Your task to perform on an android device: Open Chrome and go to settings Image 0: 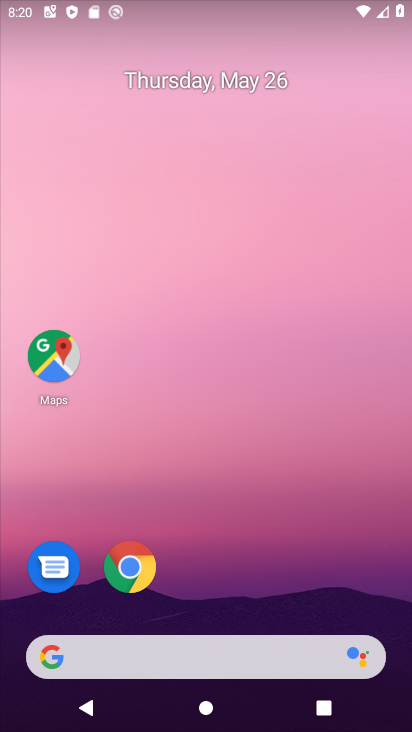
Step 0: click (134, 573)
Your task to perform on an android device: Open Chrome and go to settings Image 1: 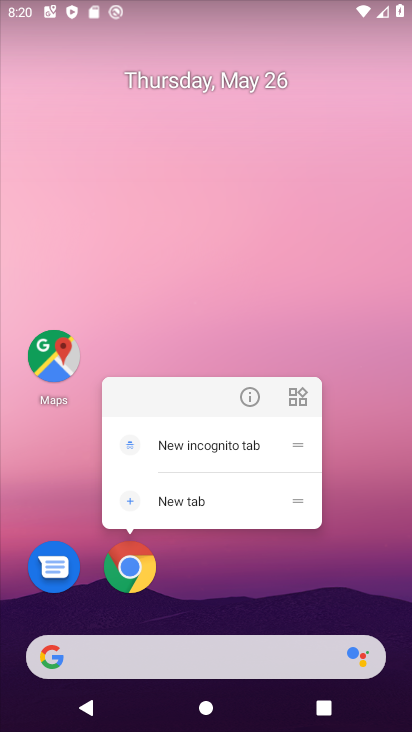
Step 1: click (123, 571)
Your task to perform on an android device: Open Chrome and go to settings Image 2: 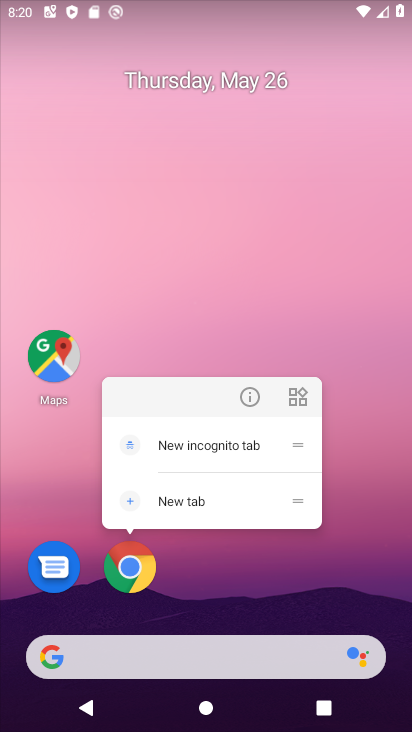
Step 2: click (136, 576)
Your task to perform on an android device: Open Chrome and go to settings Image 3: 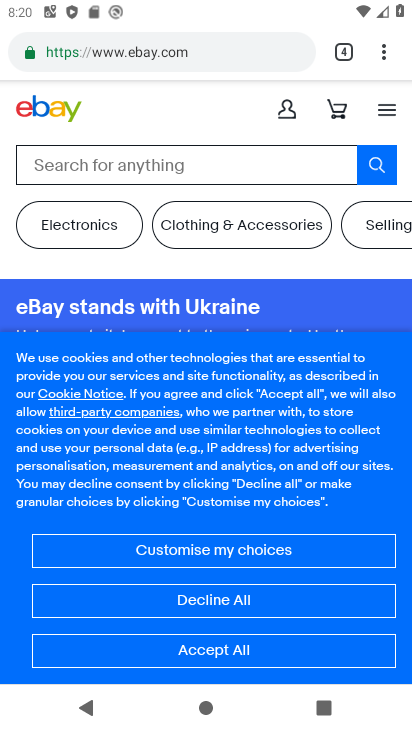
Step 3: task complete